Your task to perform on an android device: Go to location settings Image 0: 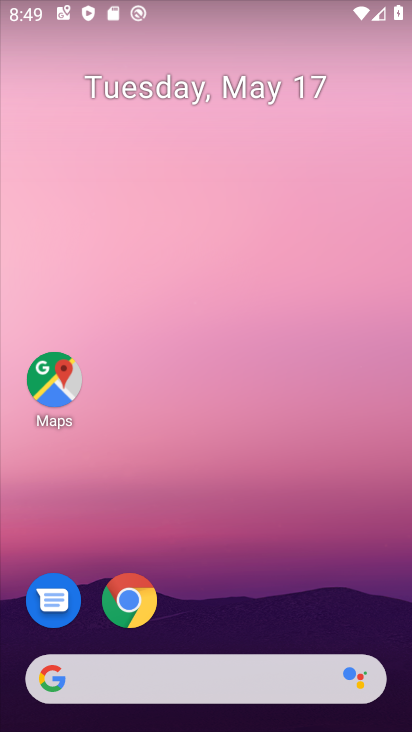
Step 0: drag from (250, 621) to (226, 238)
Your task to perform on an android device: Go to location settings Image 1: 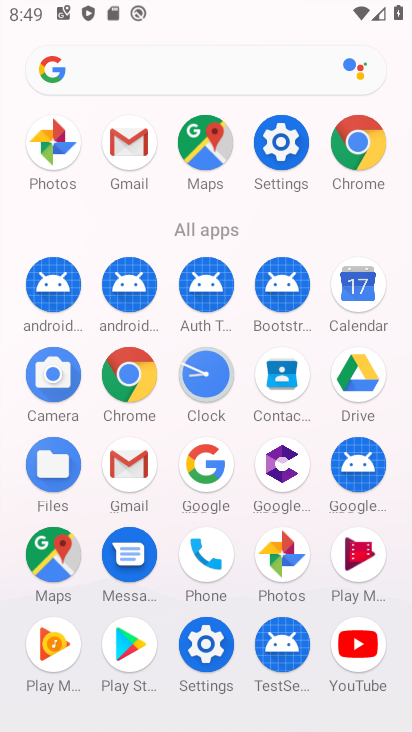
Step 1: click (275, 138)
Your task to perform on an android device: Go to location settings Image 2: 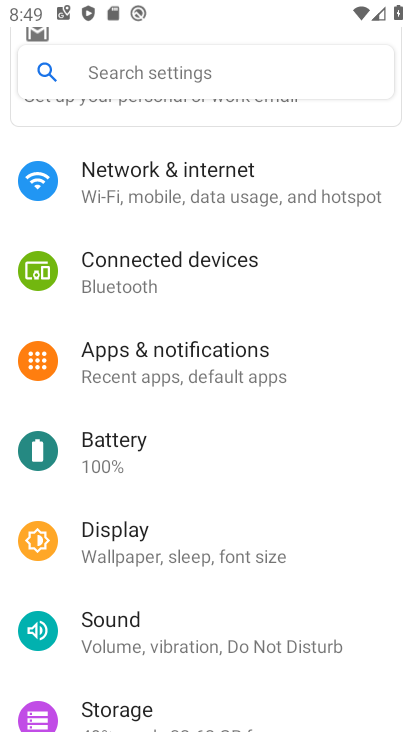
Step 2: drag from (194, 633) to (197, 214)
Your task to perform on an android device: Go to location settings Image 3: 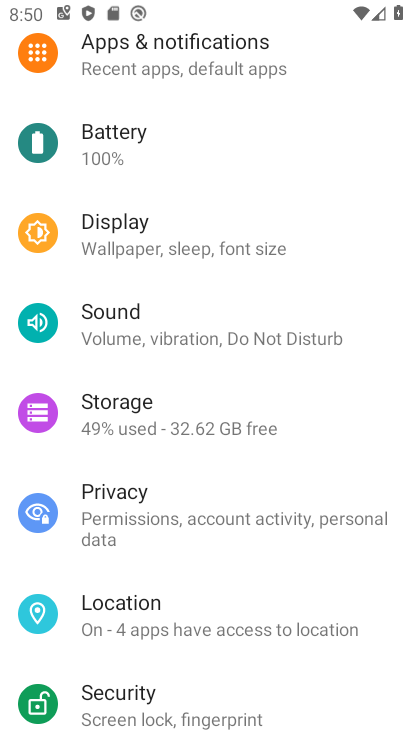
Step 3: click (163, 616)
Your task to perform on an android device: Go to location settings Image 4: 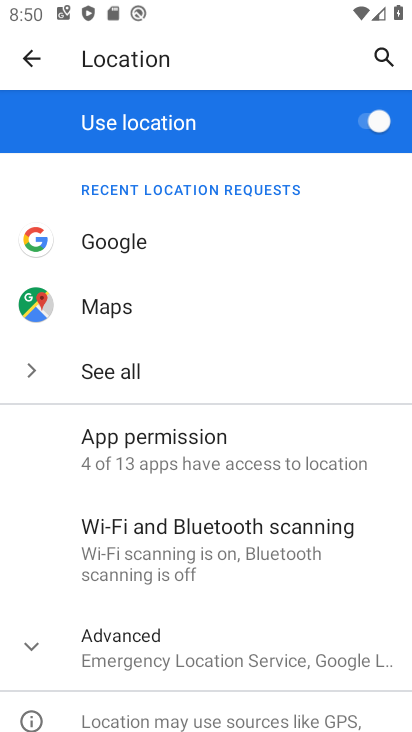
Step 4: task complete